Your task to perform on an android device: Go to wifi settings Image 0: 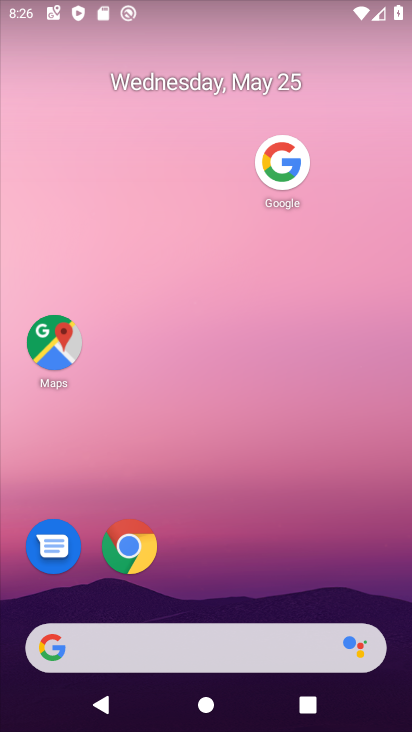
Step 0: drag from (144, 613) to (316, 64)
Your task to perform on an android device: Go to wifi settings Image 1: 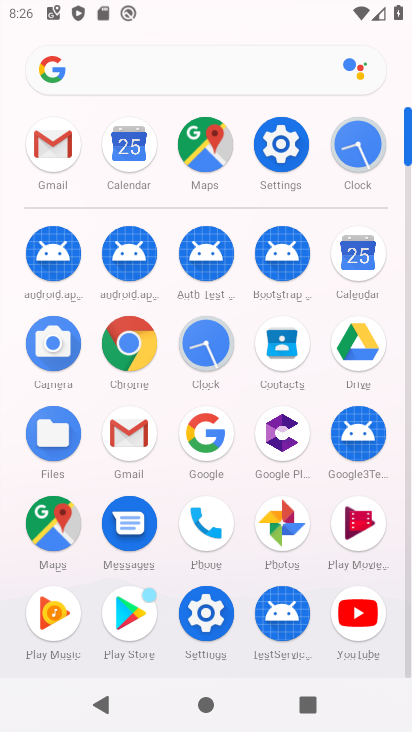
Step 1: click (281, 147)
Your task to perform on an android device: Go to wifi settings Image 2: 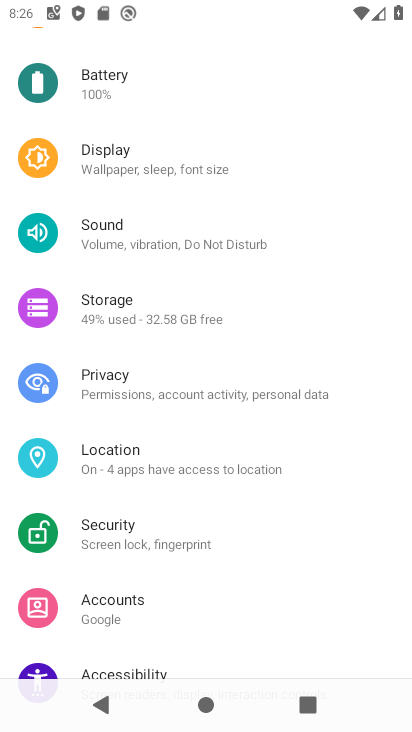
Step 2: drag from (319, 105) to (182, 636)
Your task to perform on an android device: Go to wifi settings Image 3: 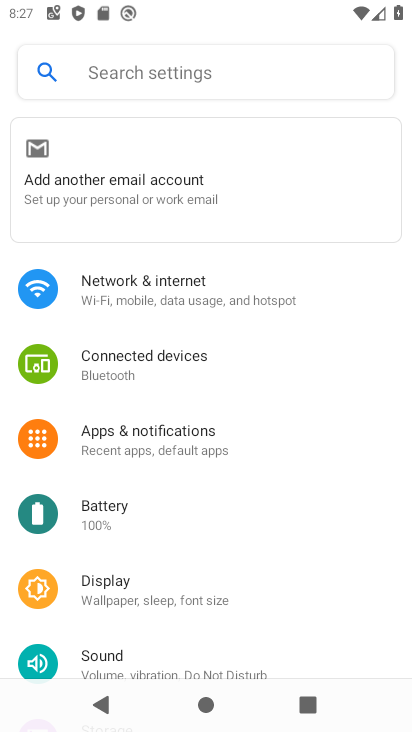
Step 3: click (151, 276)
Your task to perform on an android device: Go to wifi settings Image 4: 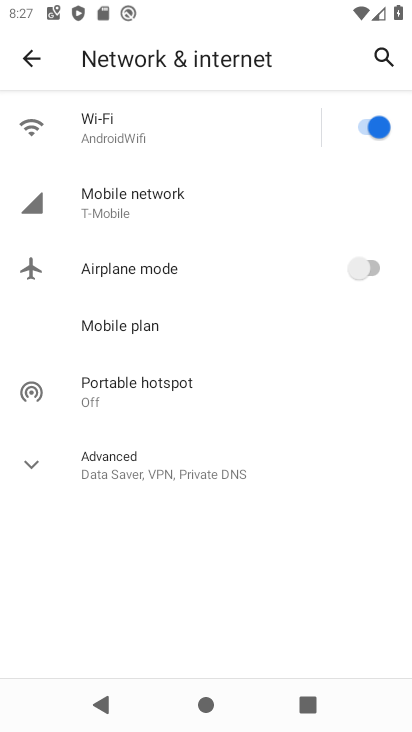
Step 4: task complete